Your task to perform on an android device: Search for hotels in Zurich Image 0: 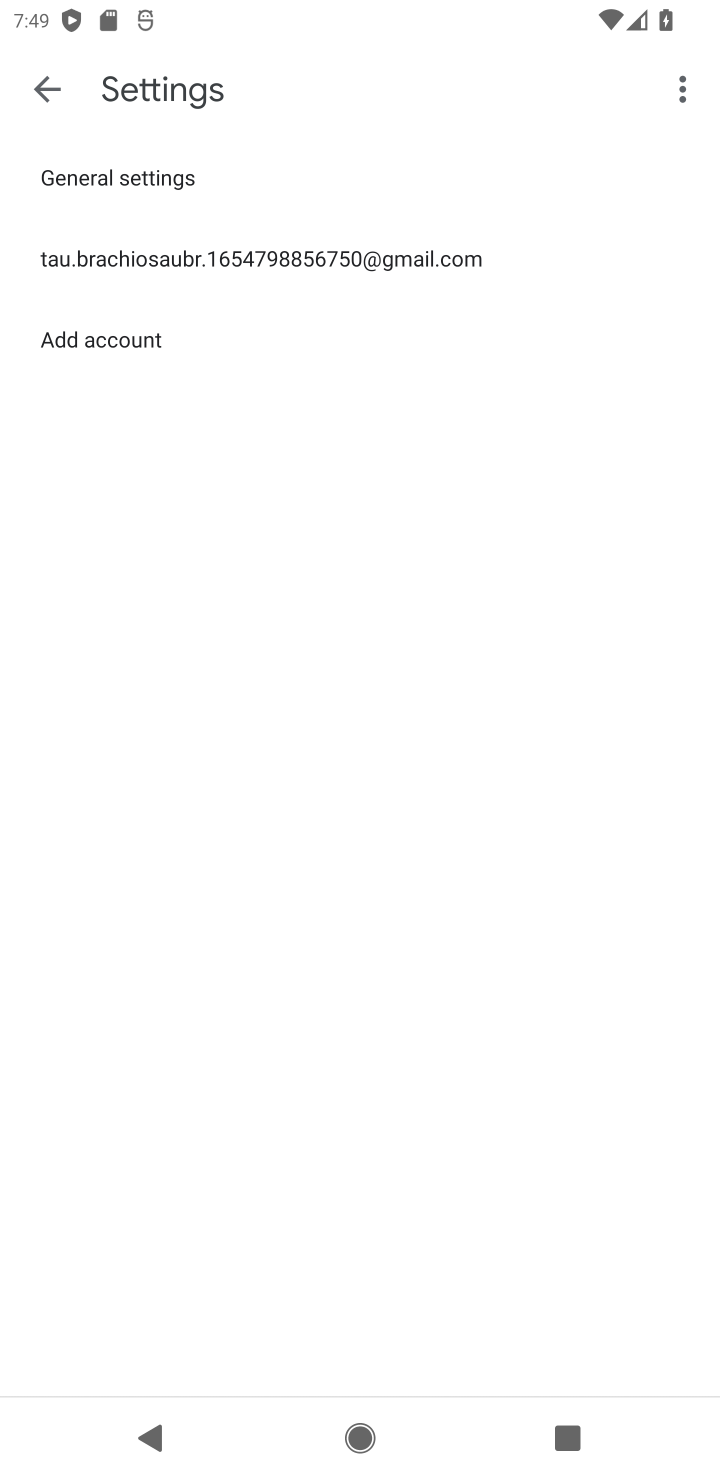
Step 0: press home button
Your task to perform on an android device: Search for hotels in Zurich Image 1: 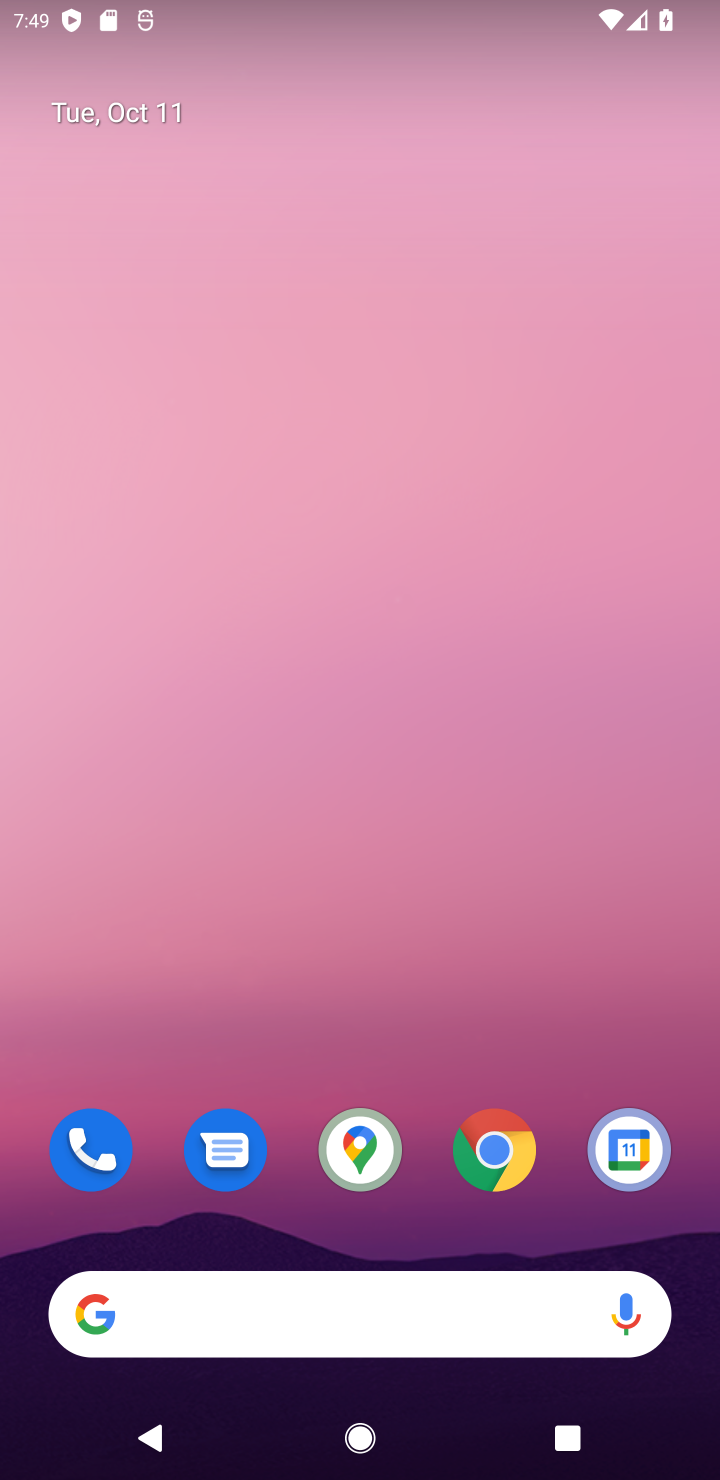
Step 1: click (483, 1171)
Your task to perform on an android device: Search for hotels in Zurich Image 2: 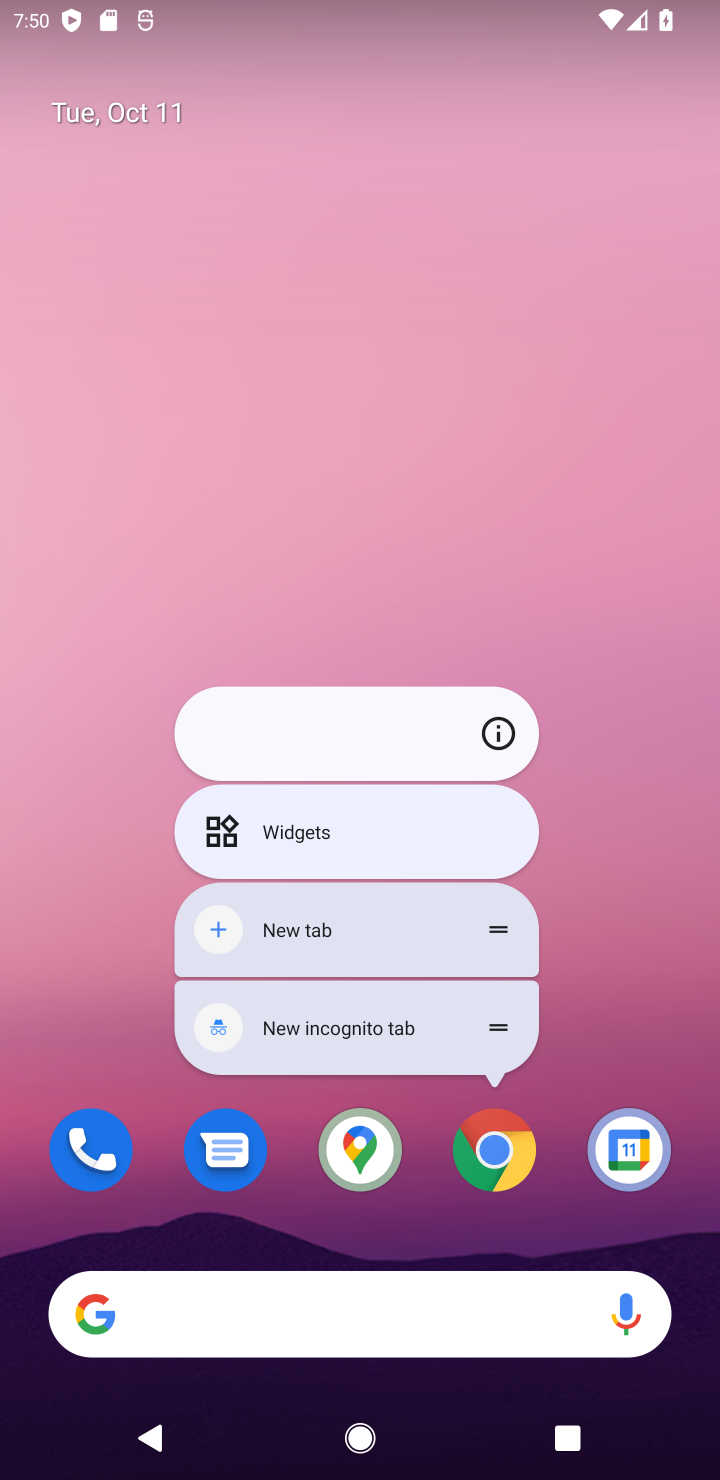
Step 2: click (493, 1173)
Your task to perform on an android device: Search for hotels in Zurich Image 3: 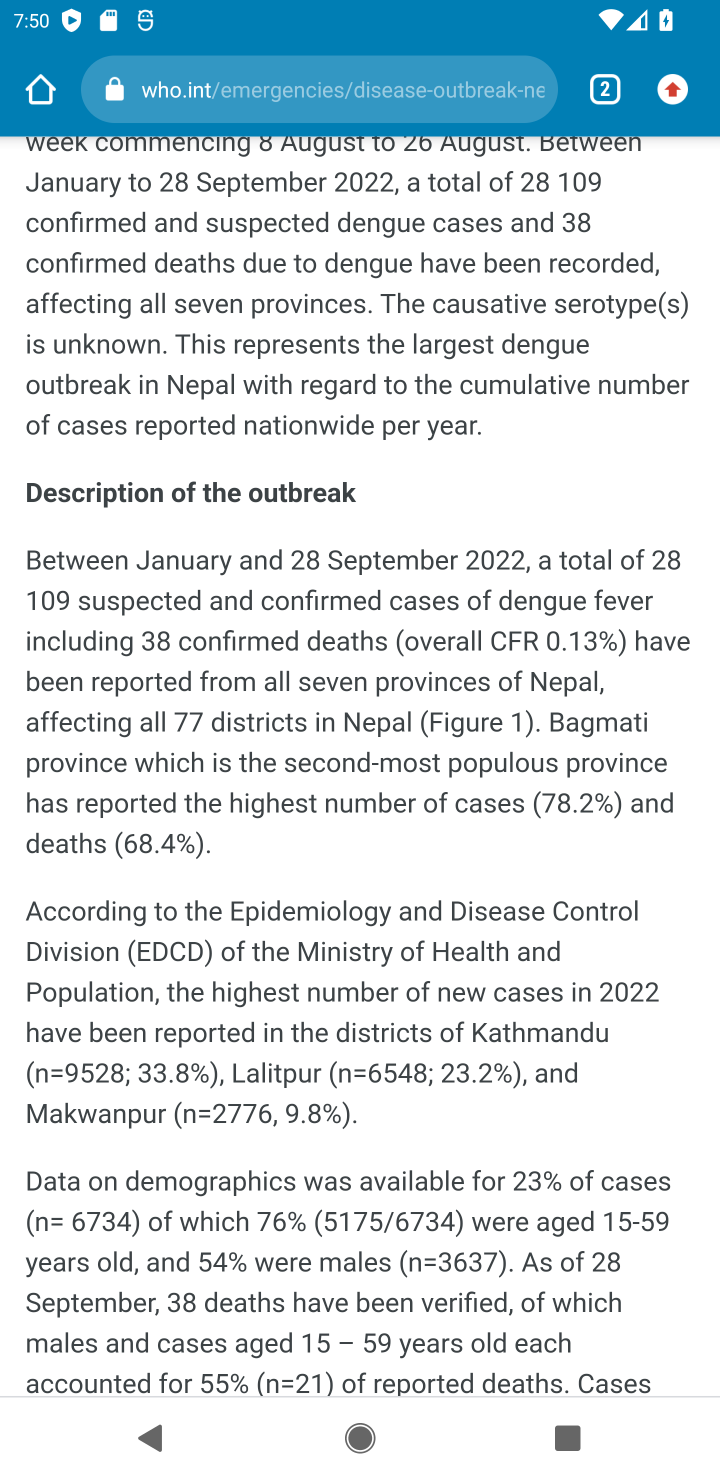
Step 3: click (306, 94)
Your task to perform on an android device: Search for hotels in Zurich Image 4: 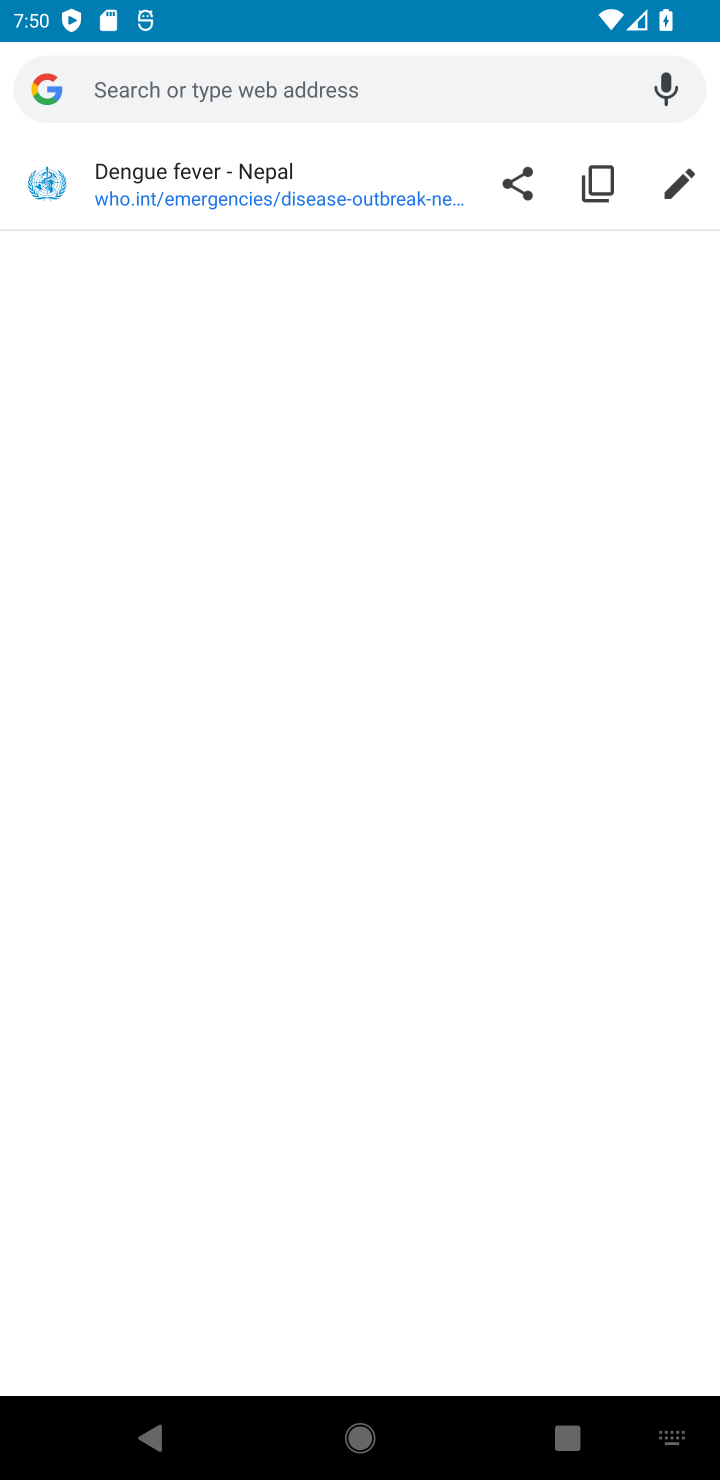
Step 4: type " hotels in Zurich"
Your task to perform on an android device: Search for hotels in Zurich Image 5: 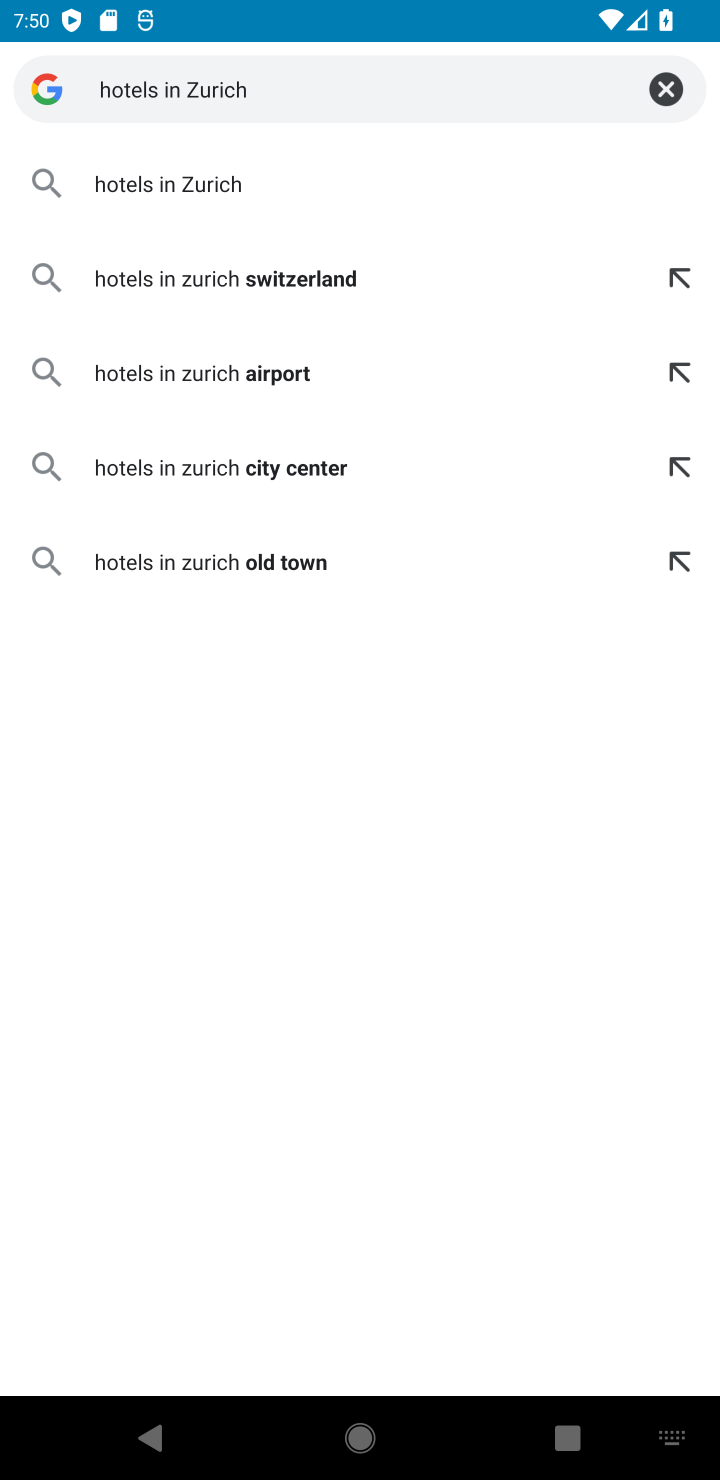
Step 5: click (140, 188)
Your task to perform on an android device: Search for hotels in Zurich Image 6: 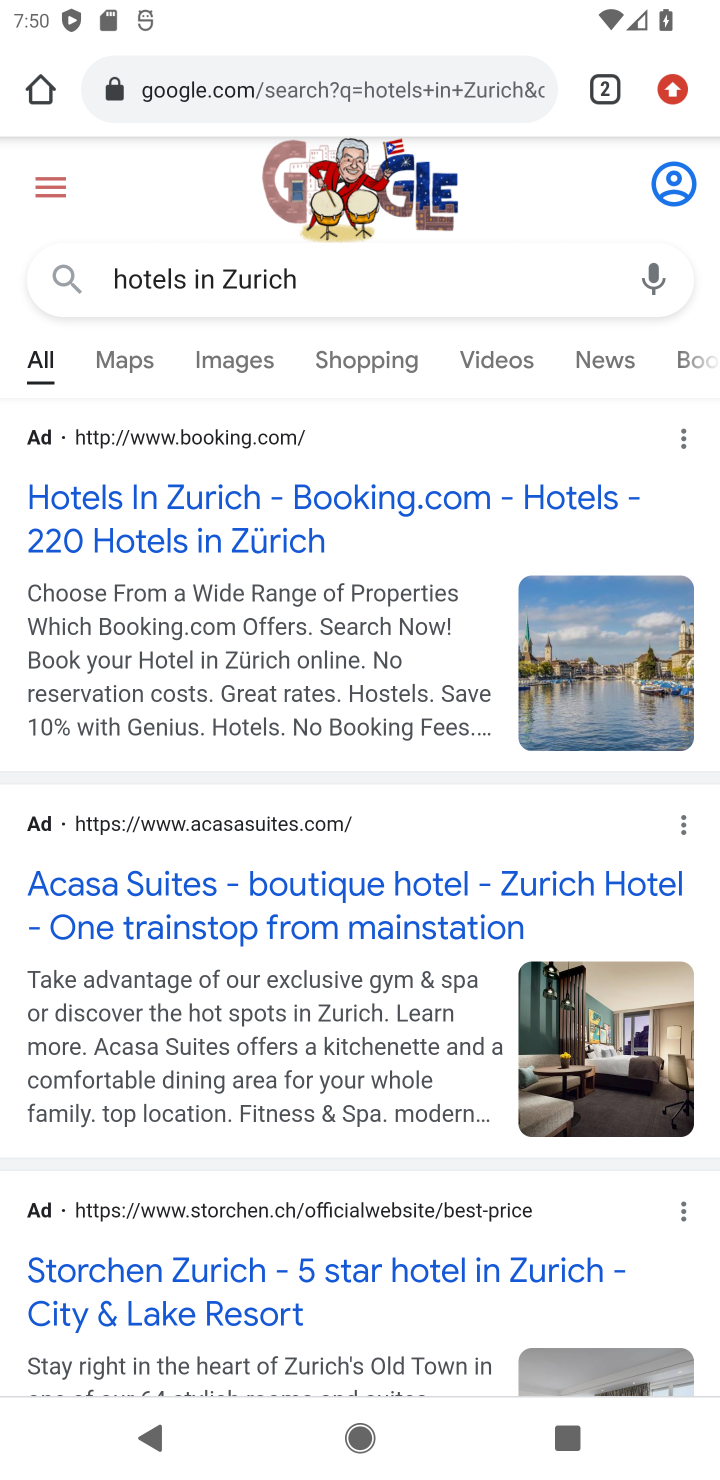
Step 6: click (160, 508)
Your task to perform on an android device: Search for hotels in Zurich Image 7: 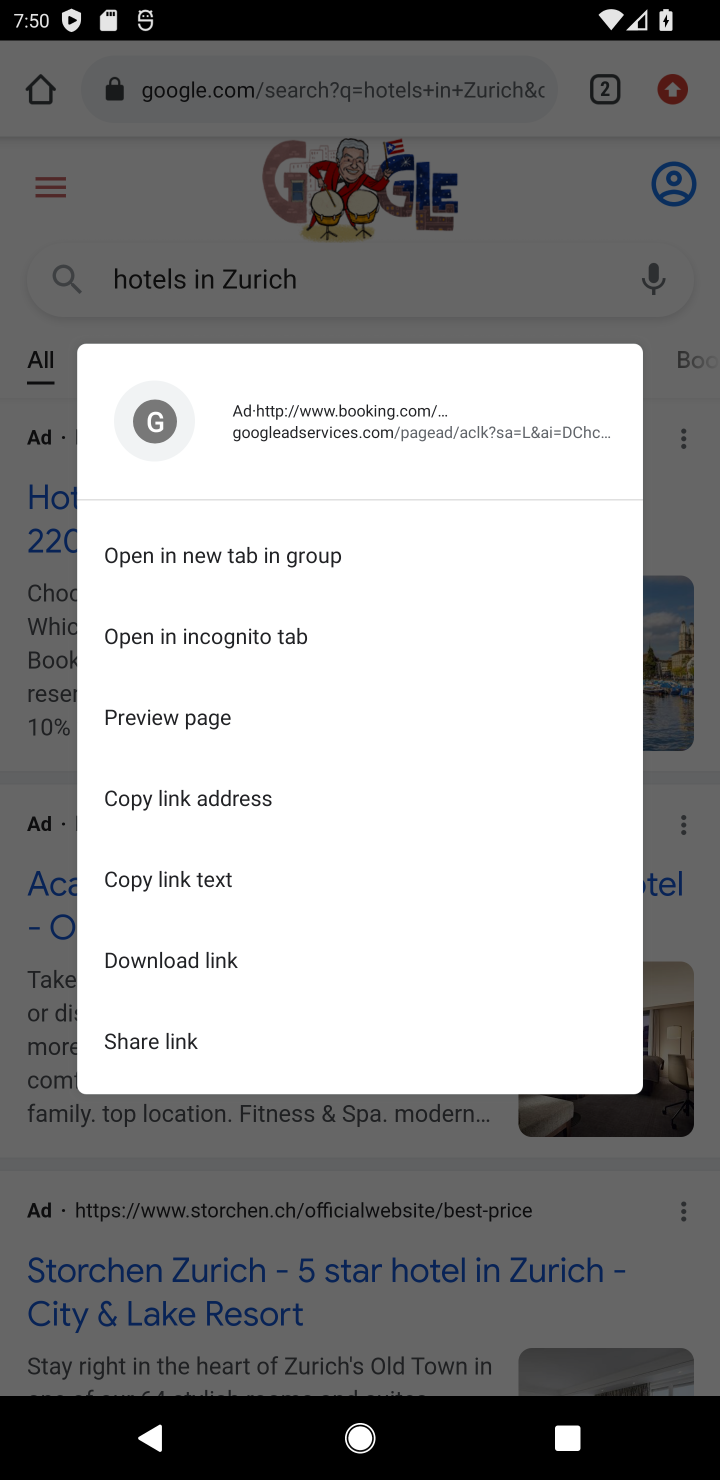
Step 7: click (36, 541)
Your task to perform on an android device: Search for hotels in Zurich Image 8: 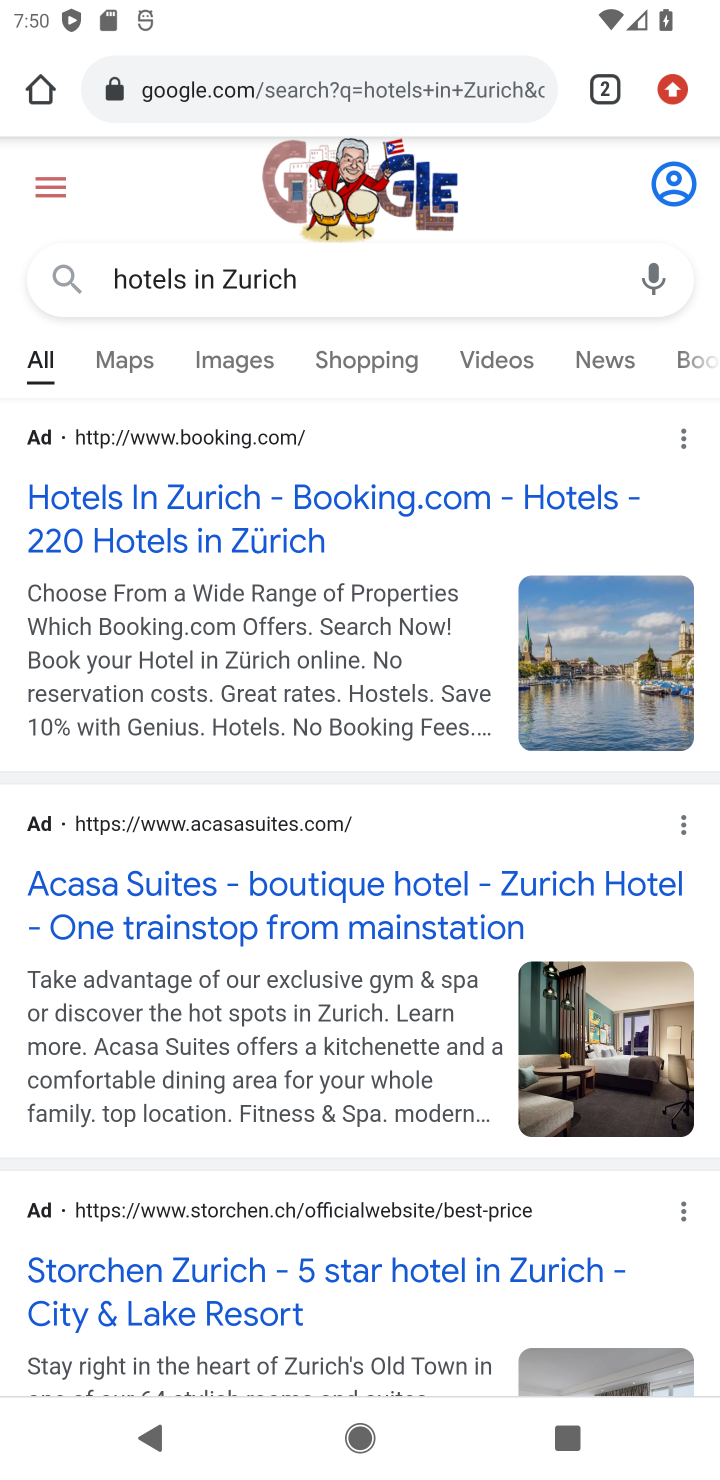
Step 8: click (76, 539)
Your task to perform on an android device: Search for hotels in Zurich Image 9: 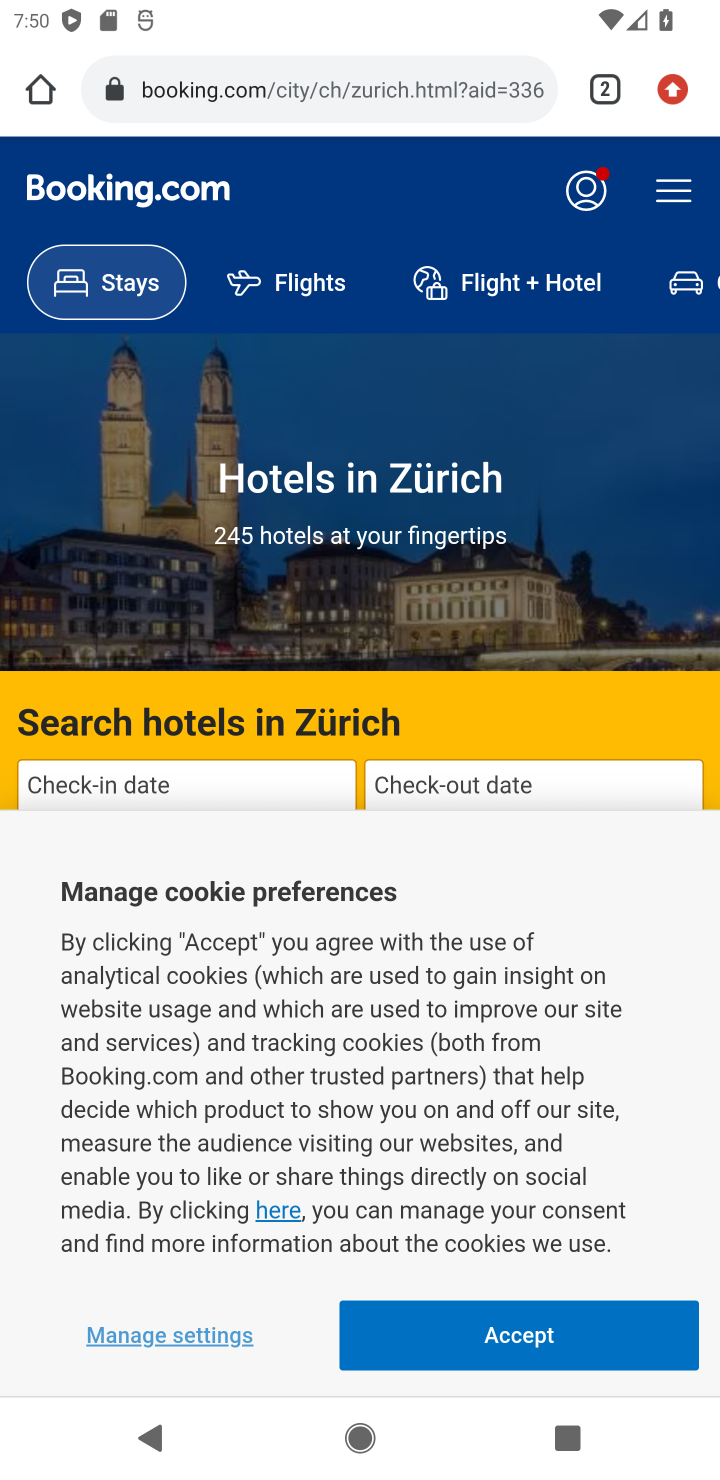
Step 9: task complete